Your task to perform on an android device: open device folders in google photos Image 0: 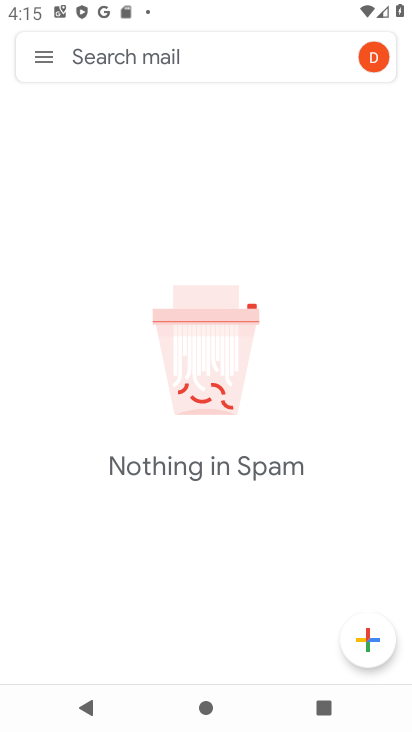
Step 0: press back button
Your task to perform on an android device: open device folders in google photos Image 1: 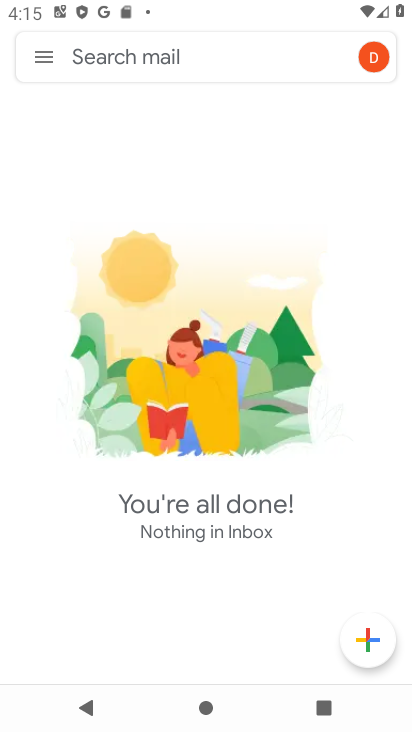
Step 1: press back button
Your task to perform on an android device: open device folders in google photos Image 2: 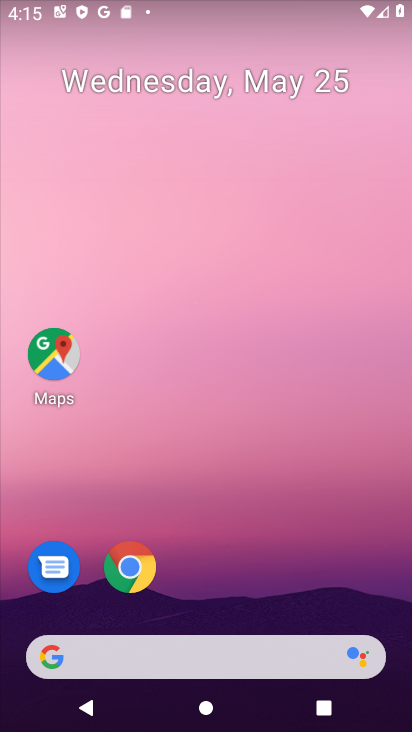
Step 2: drag from (253, 544) to (232, 34)
Your task to perform on an android device: open device folders in google photos Image 3: 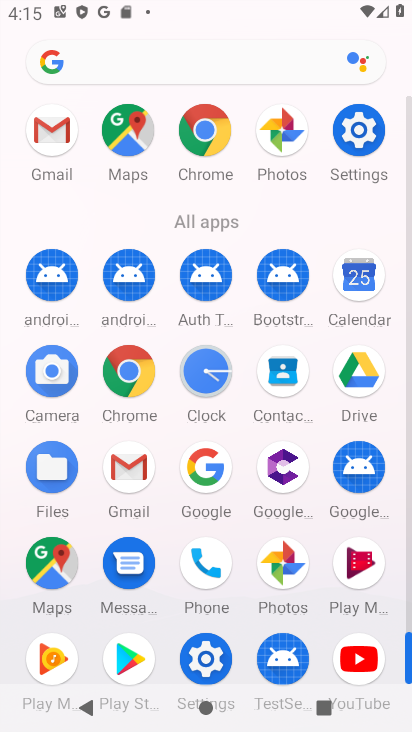
Step 3: click (283, 561)
Your task to perform on an android device: open device folders in google photos Image 4: 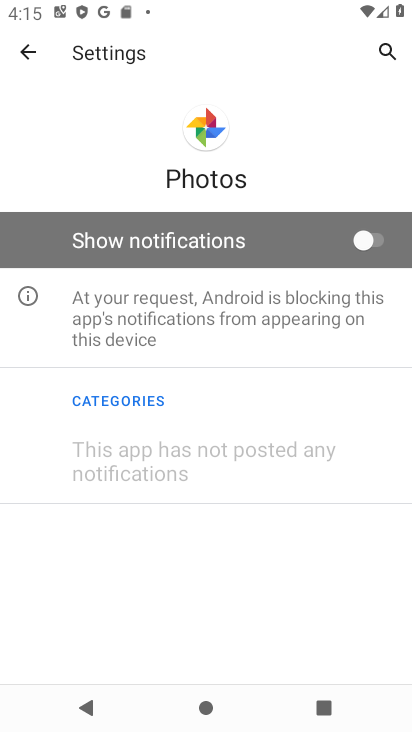
Step 4: click (31, 51)
Your task to perform on an android device: open device folders in google photos Image 5: 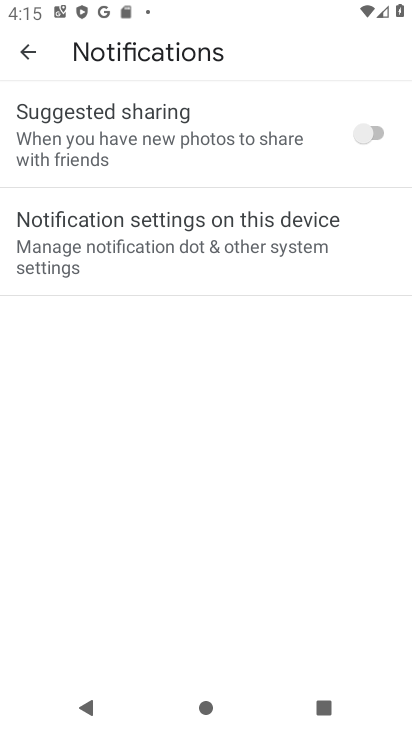
Step 5: click (31, 51)
Your task to perform on an android device: open device folders in google photos Image 6: 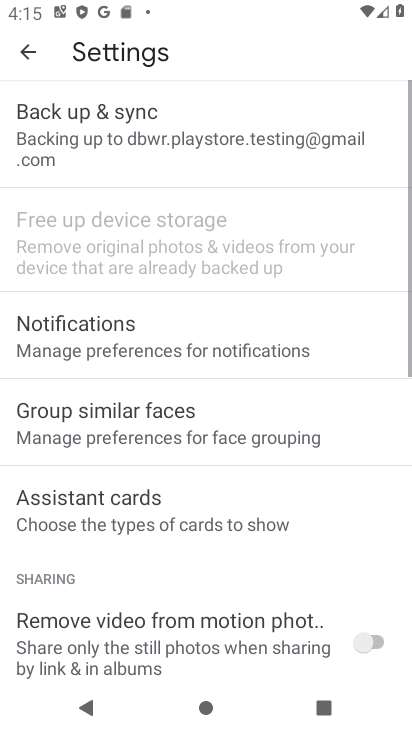
Step 6: click (31, 51)
Your task to perform on an android device: open device folders in google photos Image 7: 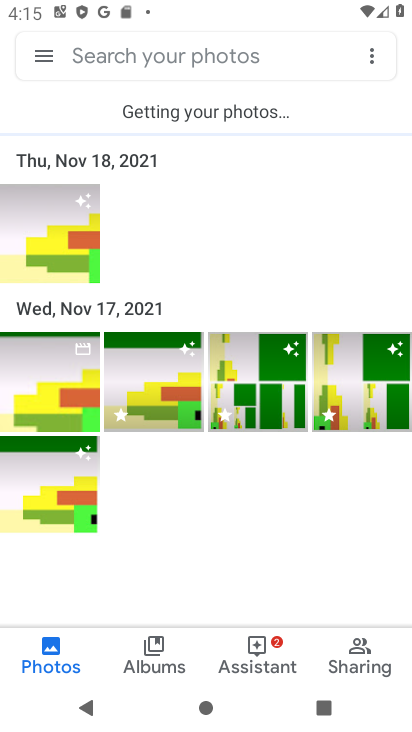
Step 7: click (44, 53)
Your task to perform on an android device: open device folders in google photos Image 8: 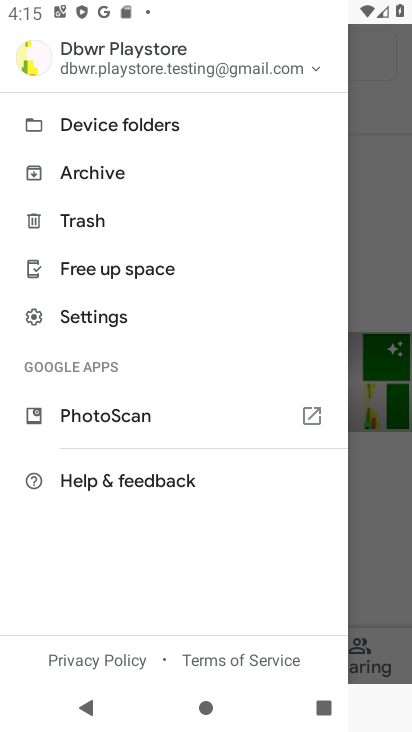
Step 8: click (112, 124)
Your task to perform on an android device: open device folders in google photos Image 9: 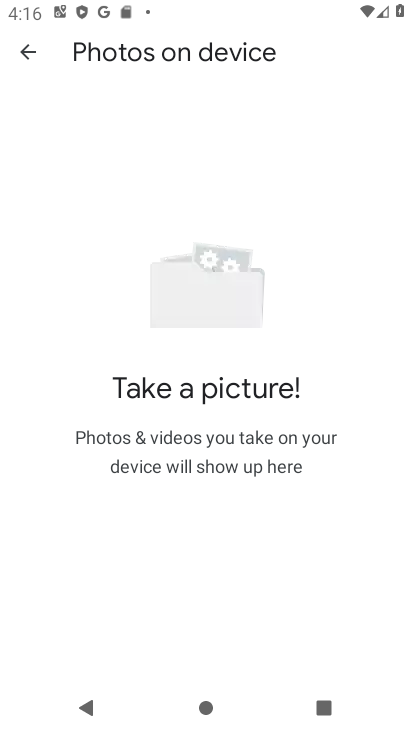
Step 9: task complete